Your task to perform on an android device: Go to battery settings Image 0: 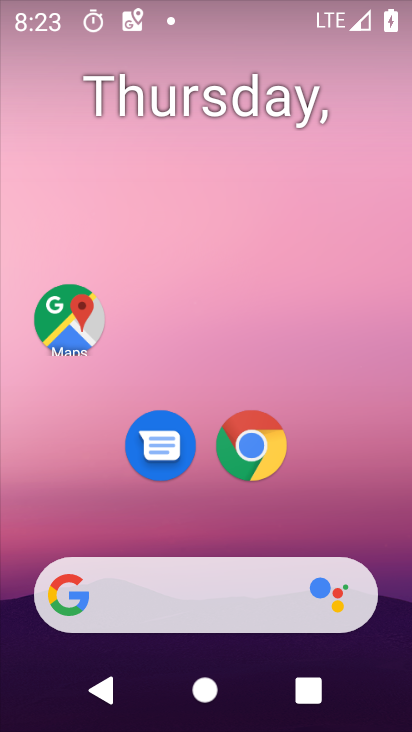
Step 0: drag from (229, 353) to (249, 141)
Your task to perform on an android device: Go to battery settings Image 1: 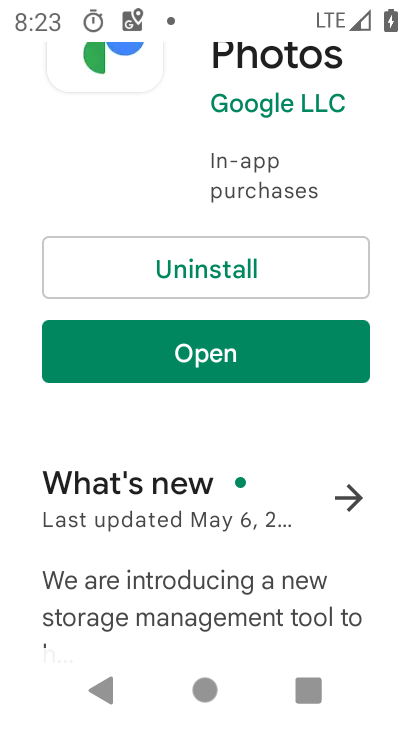
Step 1: drag from (358, 172) to (342, 611)
Your task to perform on an android device: Go to battery settings Image 2: 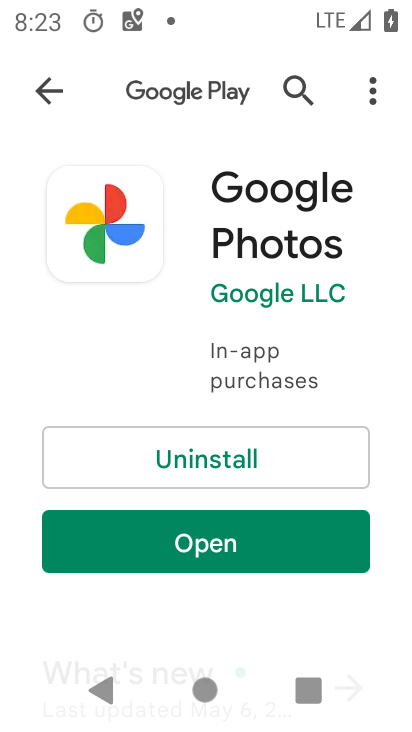
Step 2: press home button
Your task to perform on an android device: Go to battery settings Image 3: 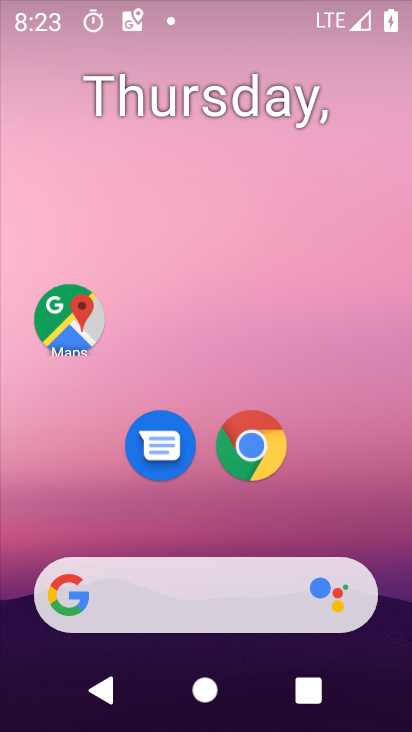
Step 3: drag from (211, 560) to (248, 44)
Your task to perform on an android device: Go to battery settings Image 4: 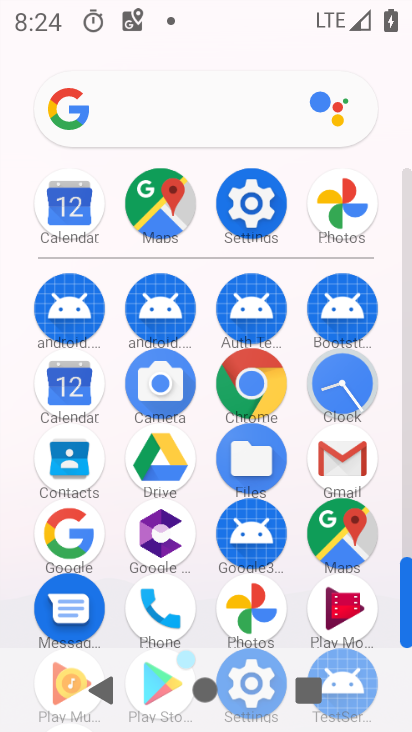
Step 4: click (245, 193)
Your task to perform on an android device: Go to battery settings Image 5: 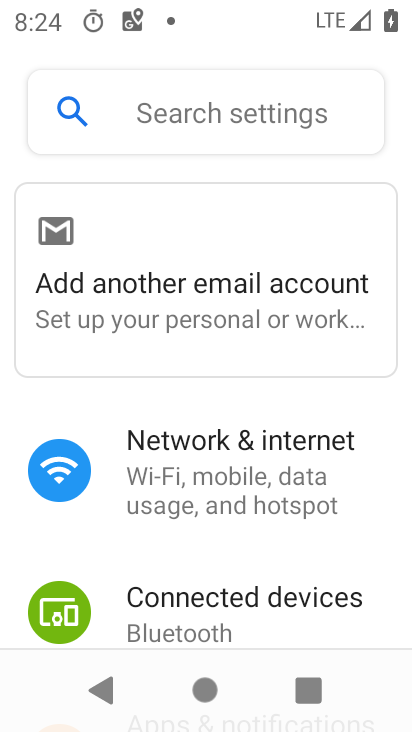
Step 5: drag from (221, 513) to (272, 57)
Your task to perform on an android device: Go to battery settings Image 6: 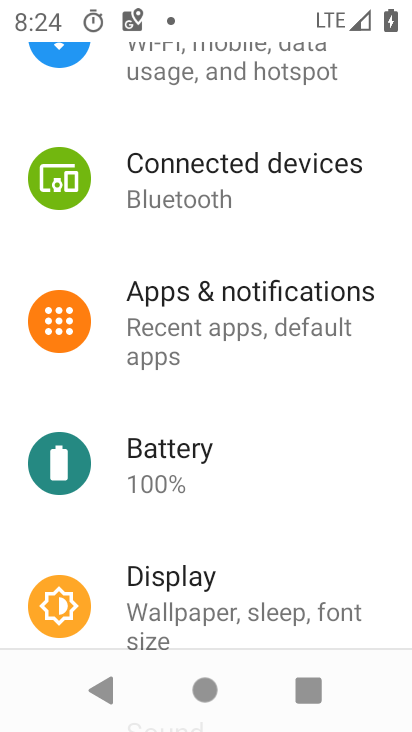
Step 6: click (186, 440)
Your task to perform on an android device: Go to battery settings Image 7: 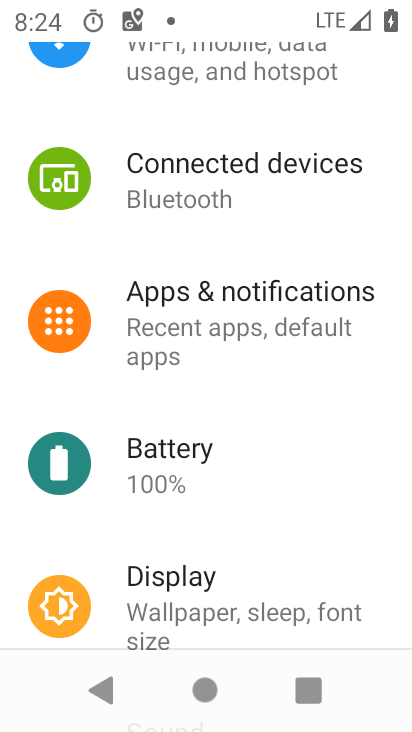
Step 7: click (186, 440)
Your task to perform on an android device: Go to battery settings Image 8: 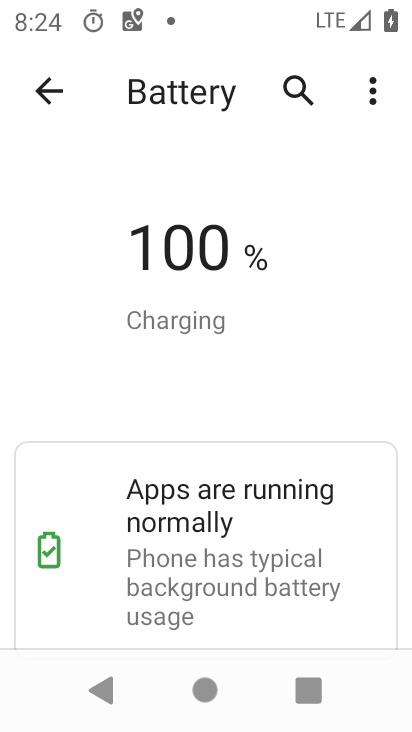
Step 8: task complete